Your task to perform on an android device: Go to Google maps Image 0: 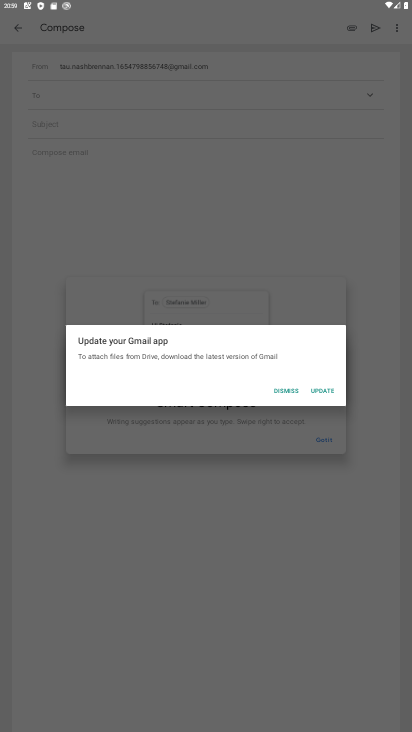
Step 0: press home button
Your task to perform on an android device: Go to Google maps Image 1: 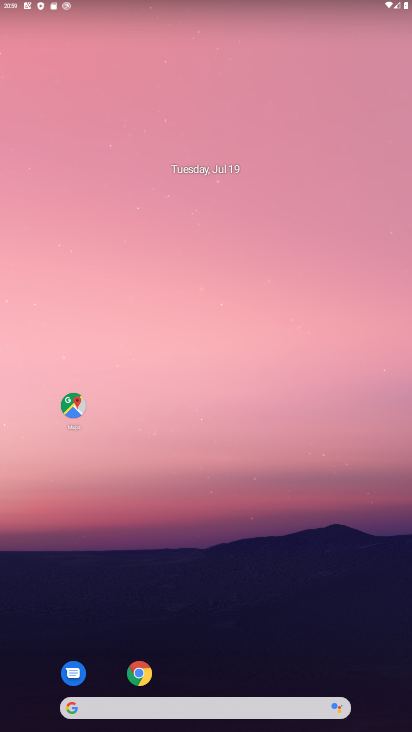
Step 1: click (80, 409)
Your task to perform on an android device: Go to Google maps Image 2: 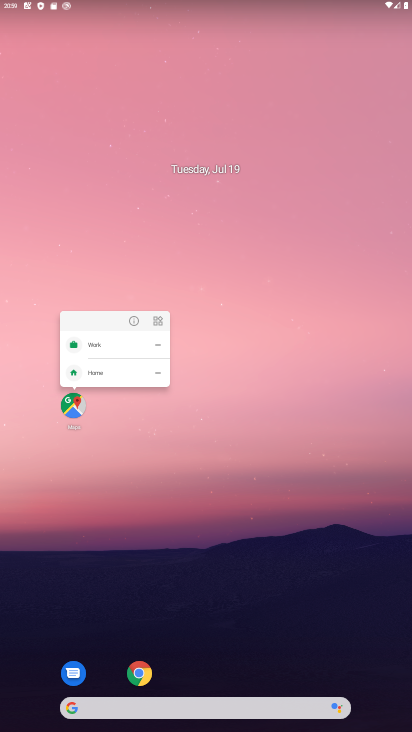
Step 2: click (66, 406)
Your task to perform on an android device: Go to Google maps Image 3: 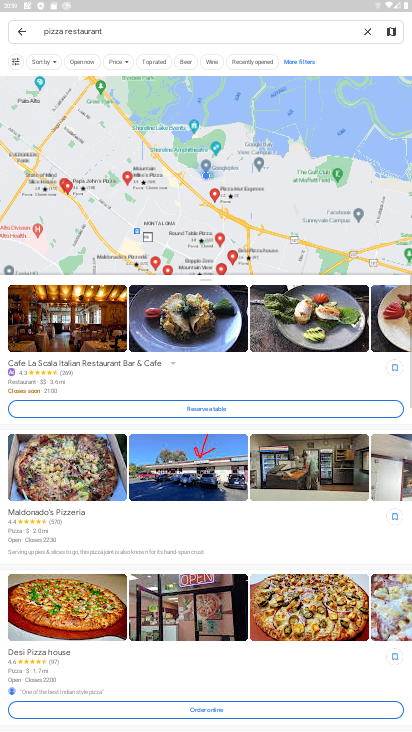
Step 3: click (17, 35)
Your task to perform on an android device: Go to Google maps Image 4: 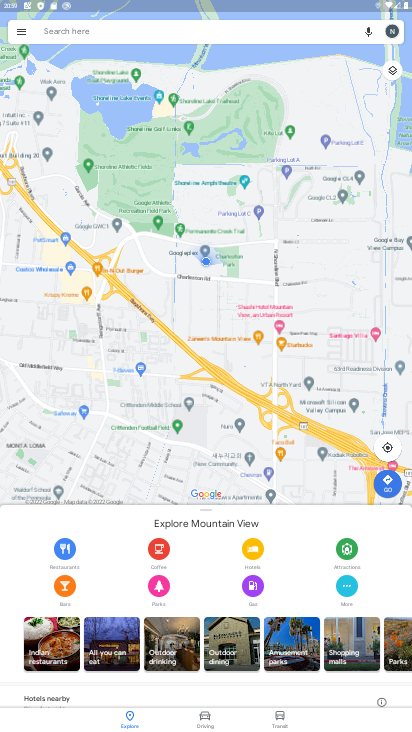
Step 4: task complete